Your task to perform on an android device: Show me popular games on the Play Store Image 0: 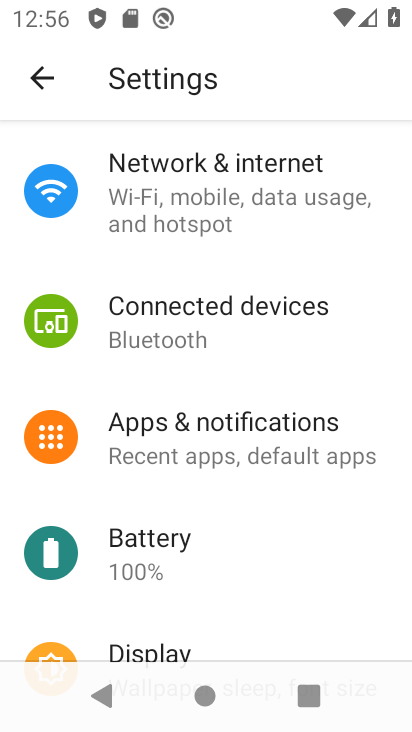
Step 0: press home button
Your task to perform on an android device: Show me popular games on the Play Store Image 1: 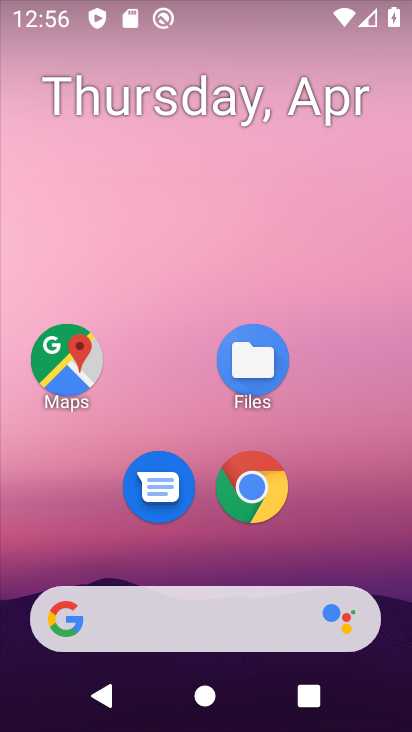
Step 1: drag from (391, 539) to (390, 143)
Your task to perform on an android device: Show me popular games on the Play Store Image 2: 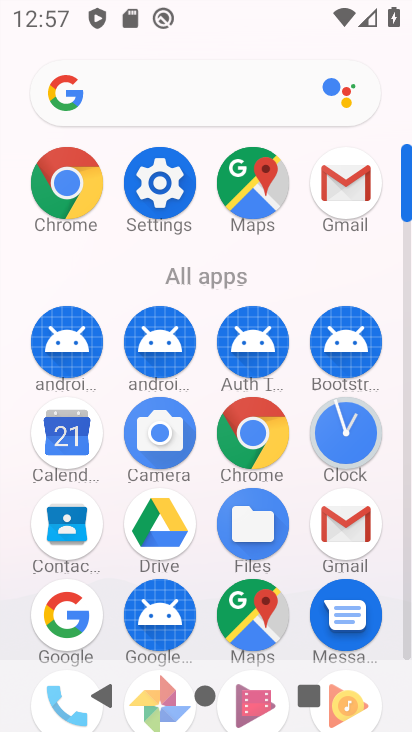
Step 2: drag from (209, 566) to (210, 364)
Your task to perform on an android device: Show me popular games on the Play Store Image 3: 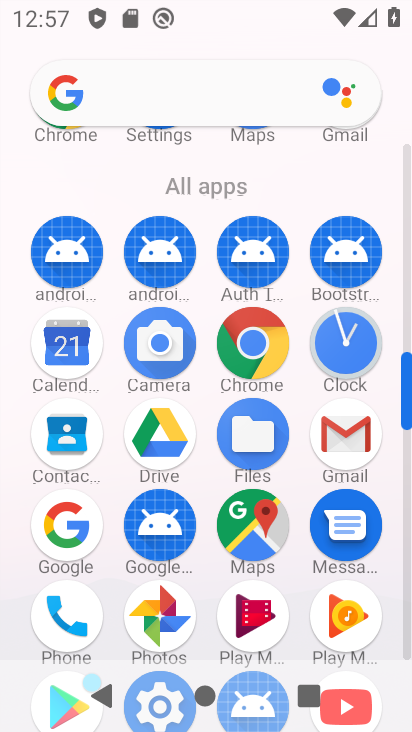
Step 3: drag from (208, 576) to (201, 384)
Your task to perform on an android device: Show me popular games on the Play Store Image 4: 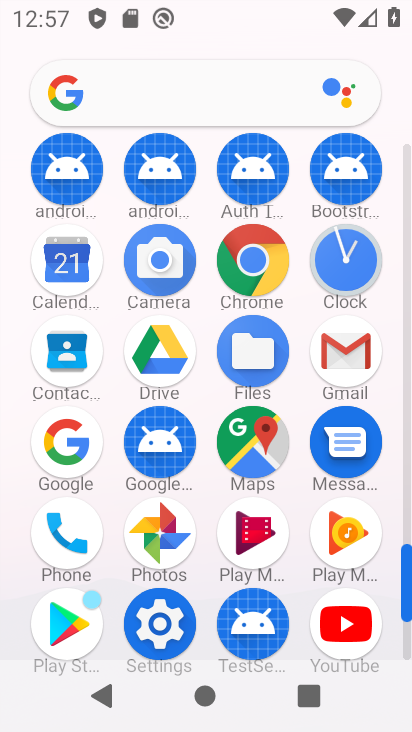
Step 4: click (50, 634)
Your task to perform on an android device: Show me popular games on the Play Store Image 5: 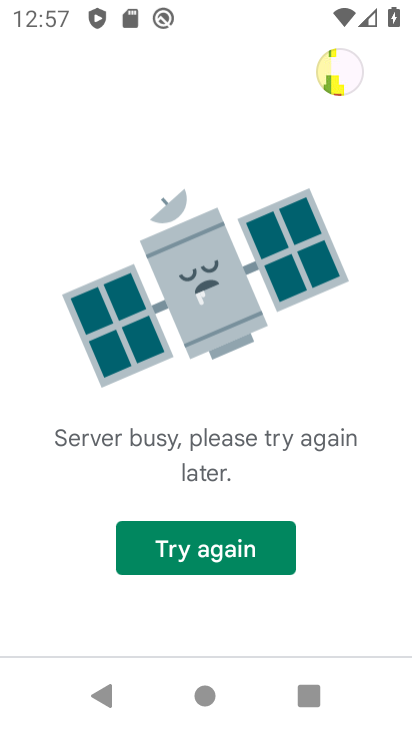
Step 5: task complete